Your task to perform on an android device: Go to calendar. Show me events next week Image 0: 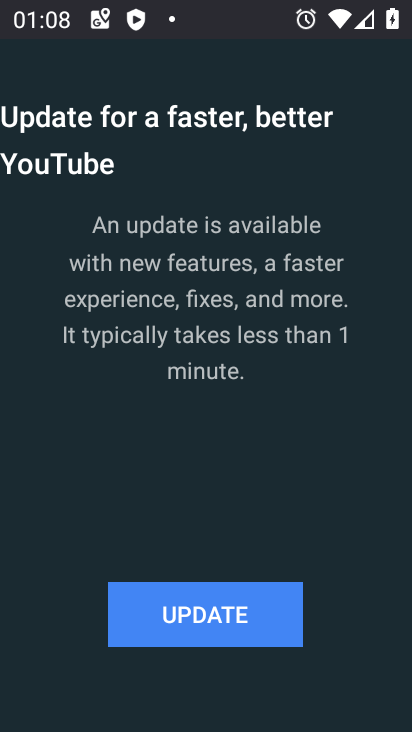
Step 0: press home button
Your task to perform on an android device: Go to calendar. Show me events next week Image 1: 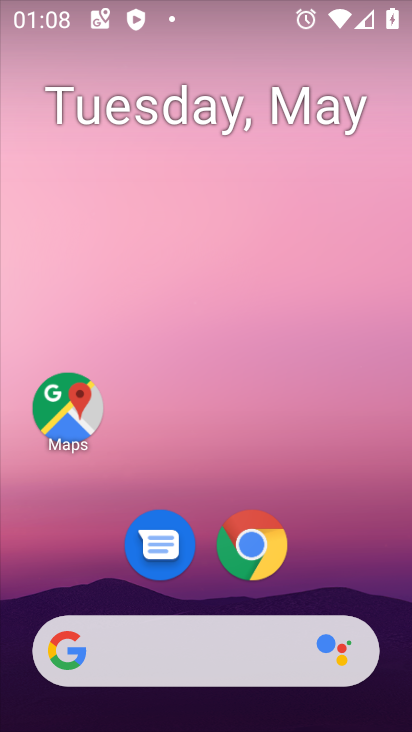
Step 1: drag from (325, 531) to (273, 44)
Your task to perform on an android device: Go to calendar. Show me events next week Image 2: 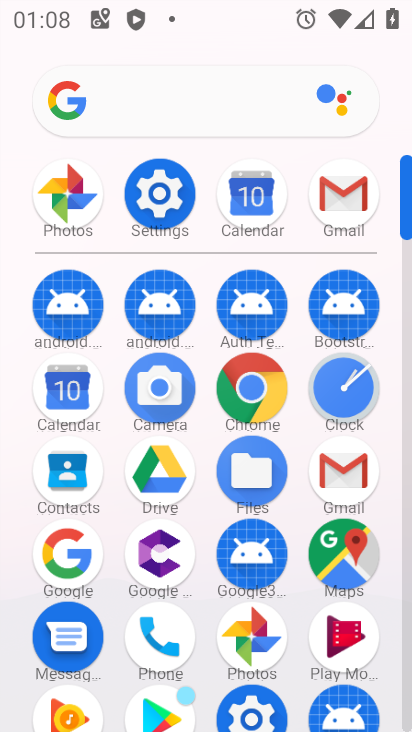
Step 2: click (45, 404)
Your task to perform on an android device: Go to calendar. Show me events next week Image 3: 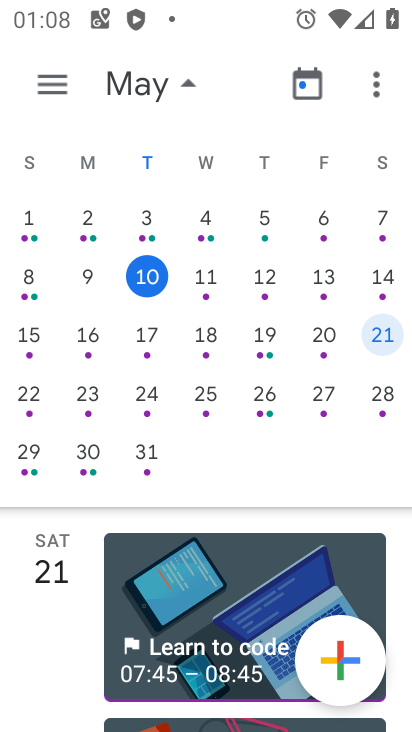
Step 3: click (44, 349)
Your task to perform on an android device: Go to calendar. Show me events next week Image 4: 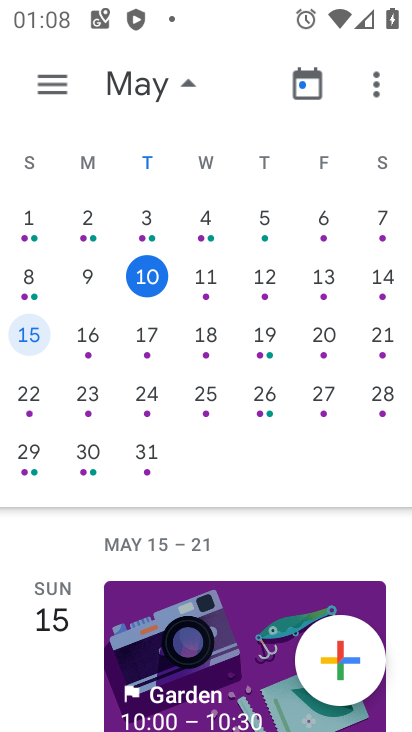
Step 4: click (88, 340)
Your task to perform on an android device: Go to calendar. Show me events next week Image 5: 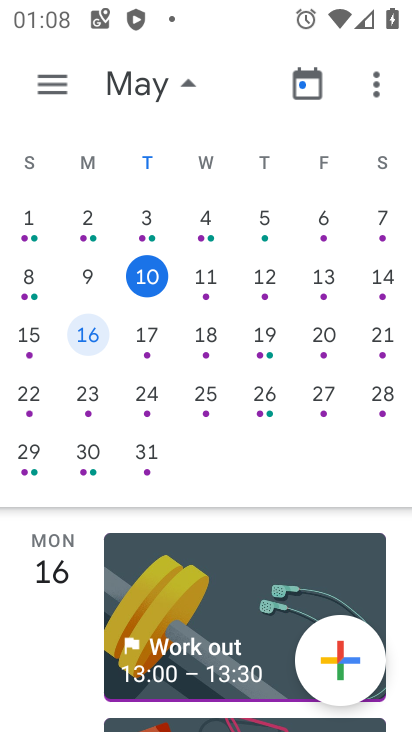
Step 5: click (148, 363)
Your task to perform on an android device: Go to calendar. Show me events next week Image 6: 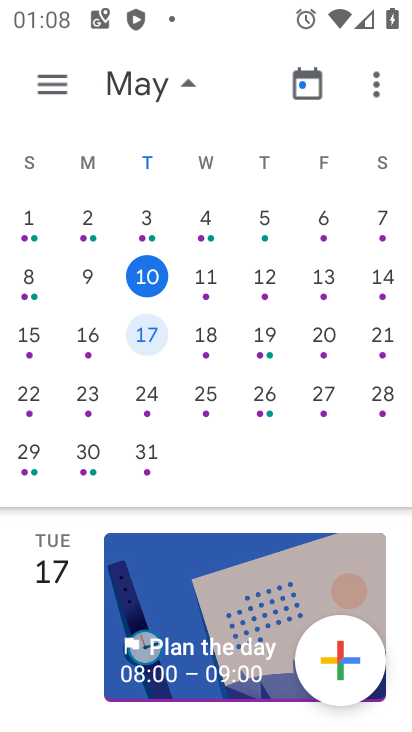
Step 6: click (226, 356)
Your task to perform on an android device: Go to calendar. Show me events next week Image 7: 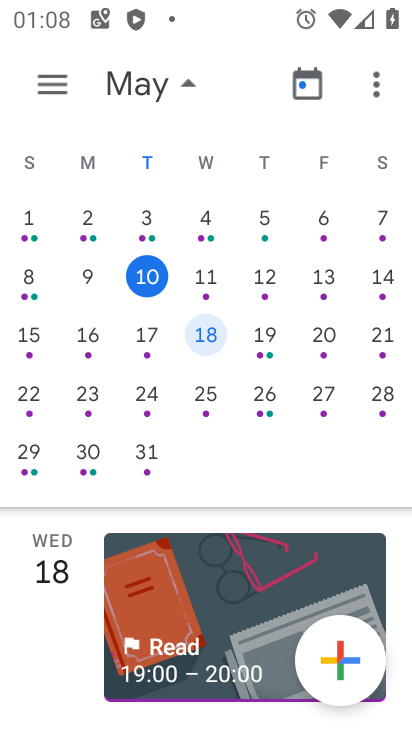
Step 7: click (282, 336)
Your task to perform on an android device: Go to calendar. Show me events next week Image 8: 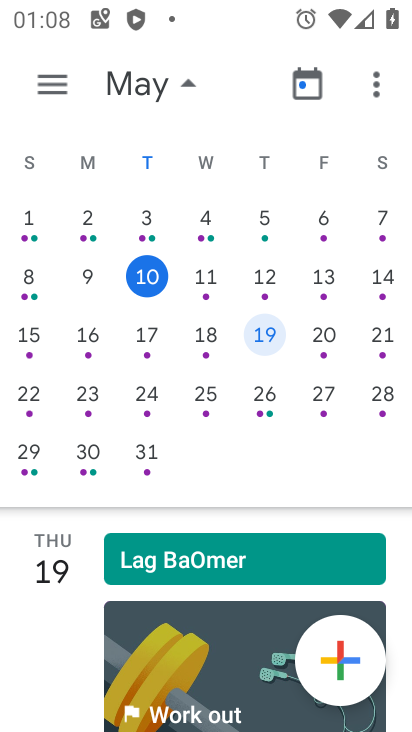
Step 8: click (321, 340)
Your task to perform on an android device: Go to calendar. Show me events next week Image 9: 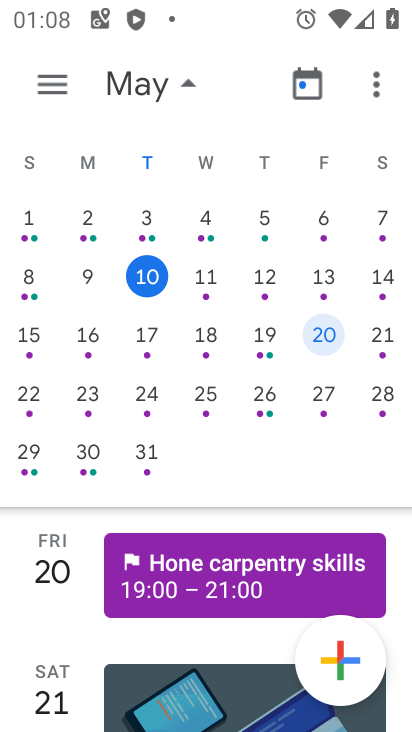
Step 9: click (383, 346)
Your task to perform on an android device: Go to calendar. Show me events next week Image 10: 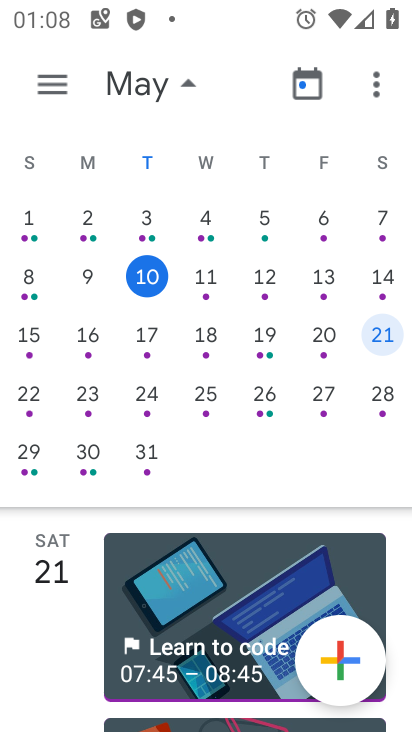
Step 10: task complete